Your task to perform on an android device: Add razer naga to the cart on bestbuy, then select checkout. Image 0: 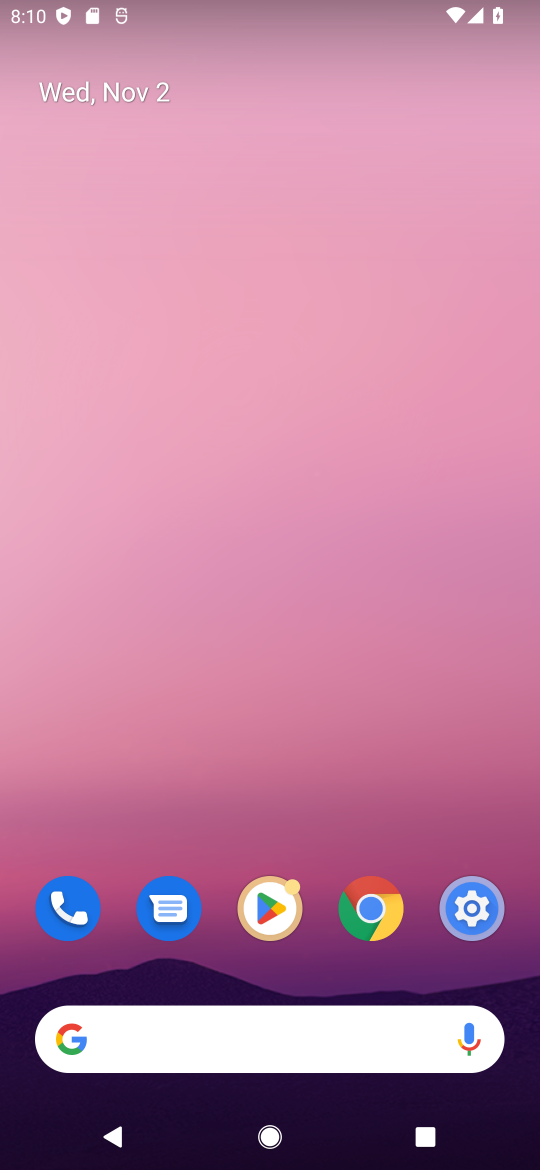
Step 0: click (147, 1020)
Your task to perform on an android device: Add razer naga to the cart on bestbuy, then select checkout. Image 1: 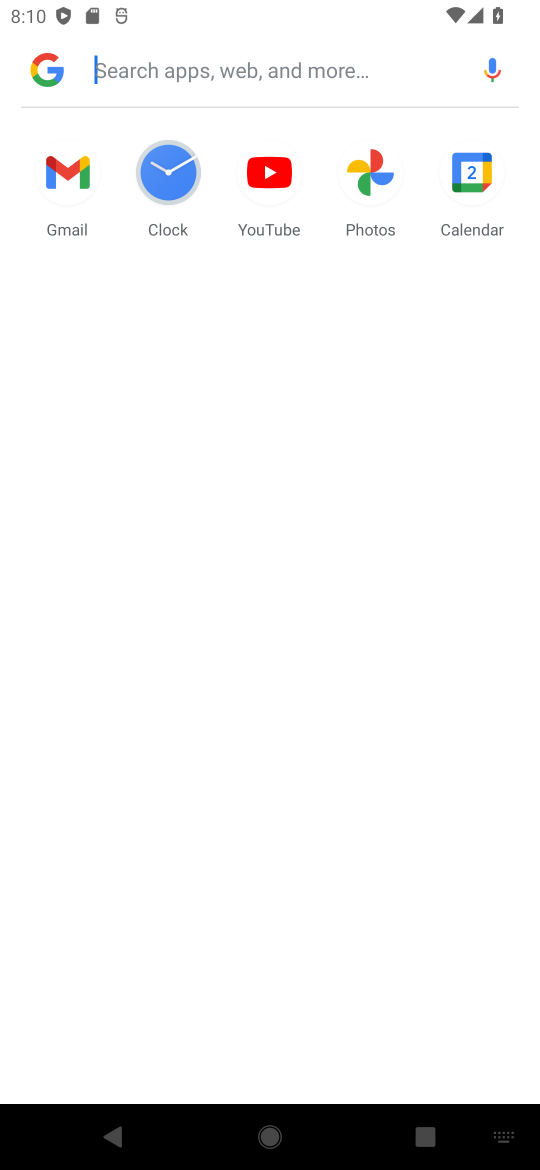
Step 1: type "bestbuy"
Your task to perform on an android device: Add razer naga to the cart on bestbuy, then select checkout. Image 2: 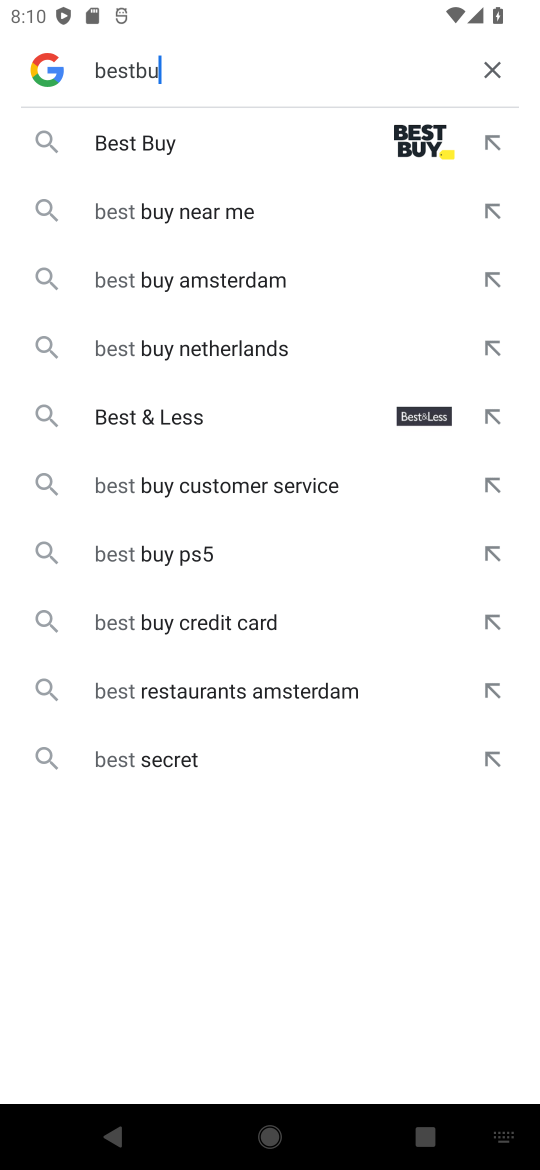
Step 2: type ""
Your task to perform on an android device: Add razer naga to the cart on bestbuy, then select checkout. Image 3: 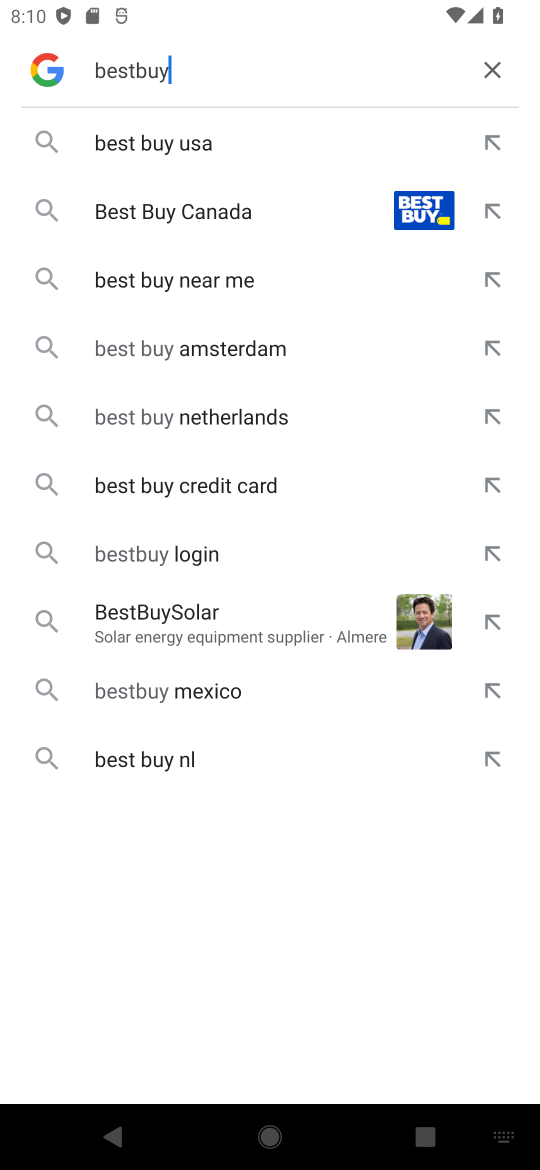
Step 3: press enter
Your task to perform on an android device: Add razer naga to the cart on bestbuy, then select checkout. Image 4: 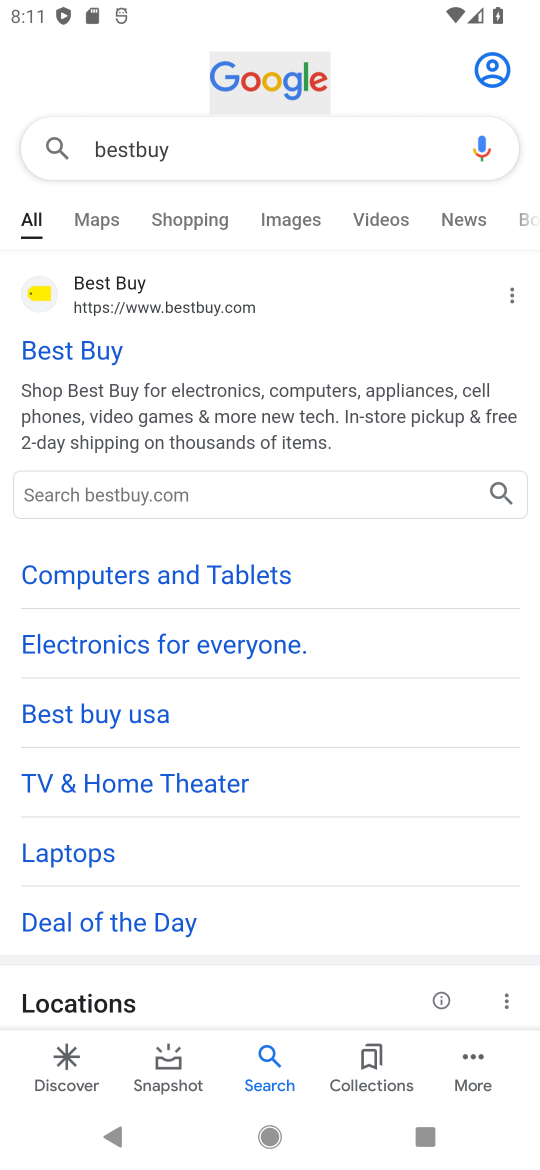
Step 4: click (124, 358)
Your task to perform on an android device: Add razer naga to the cart on bestbuy, then select checkout. Image 5: 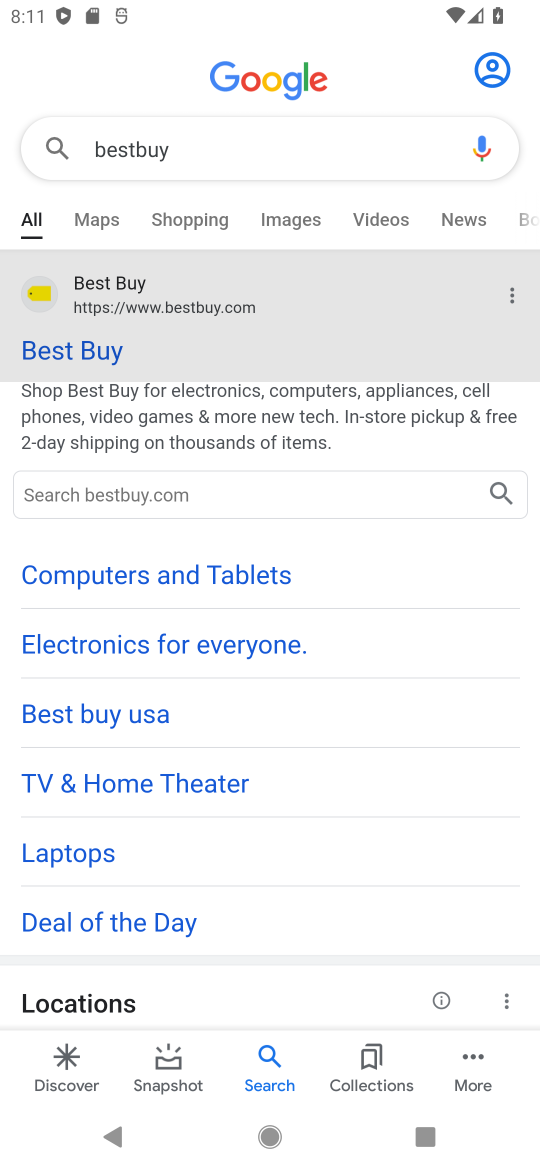
Step 5: click (123, 364)
Your task to perform on an android device: Add razer naga to the cart on bestbuy, then select checkout. Image 6: 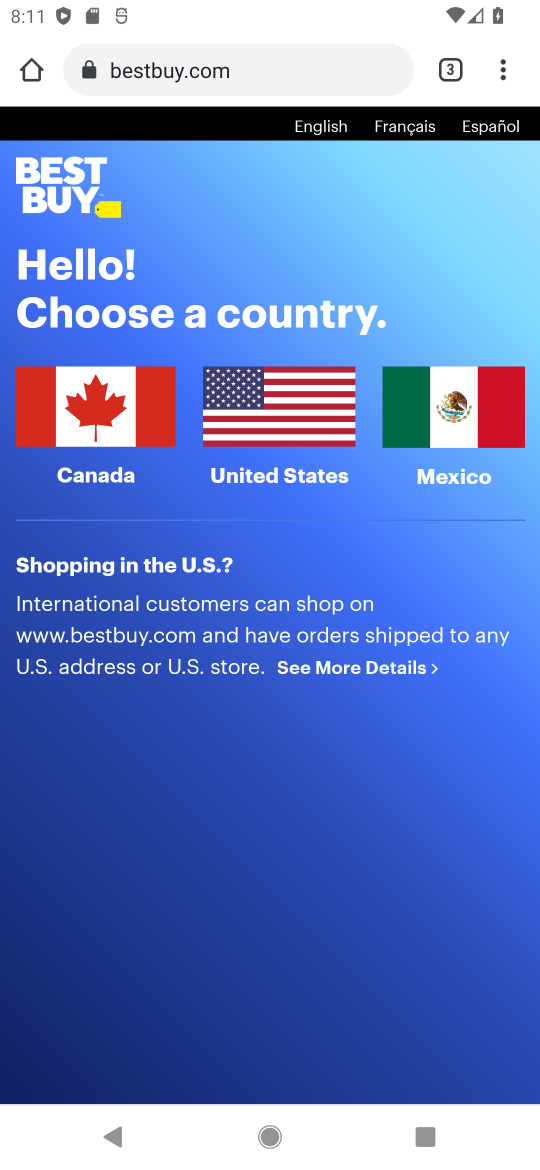
Step 6: click (265, 383)
Your task to perform on an android device: Add razer naga to the cart on bestbuy, then select checkout. Image 7: 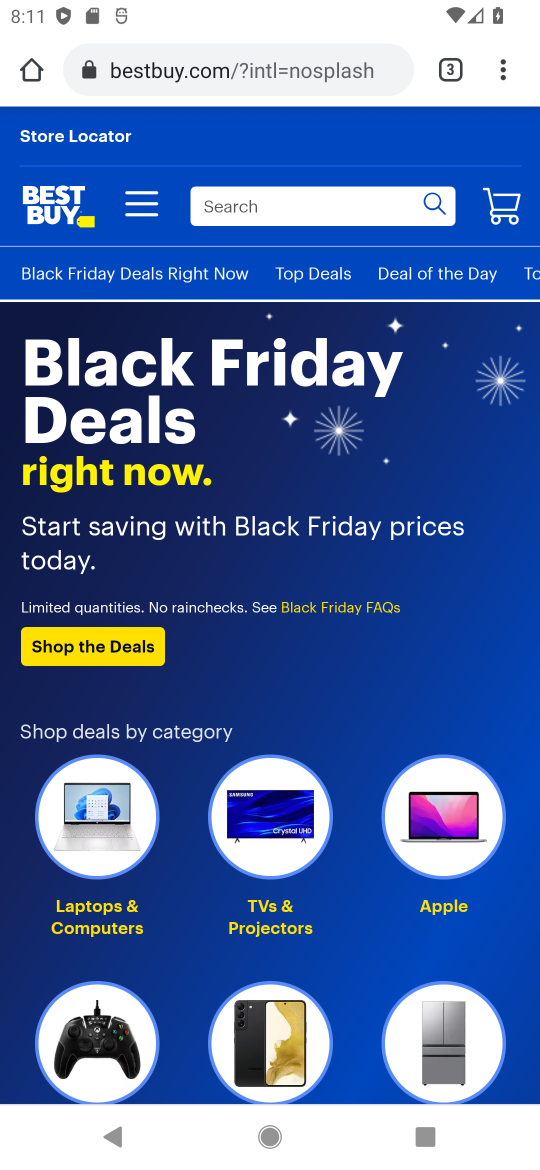
Step 7: click (280, 208)
Your task to perform on an android device: Add razer naga to the cart on bestbuy, then select checkout. Image 8: 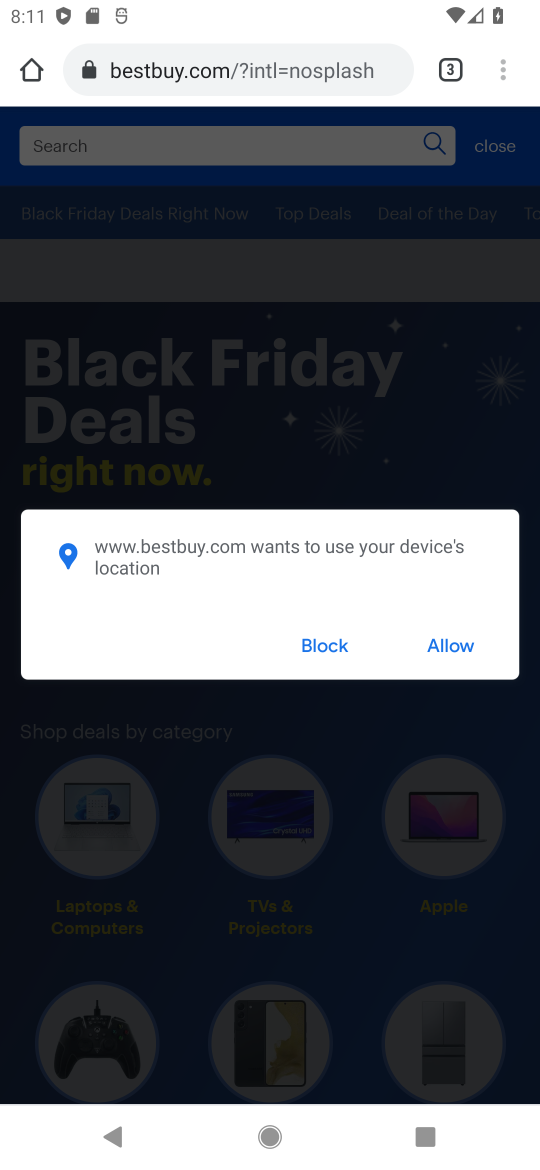
Step 8: click (331, 647)
Your task to perform on an android device: Add razer naga to the cart on bestbuy, then select checkout. Image 9: 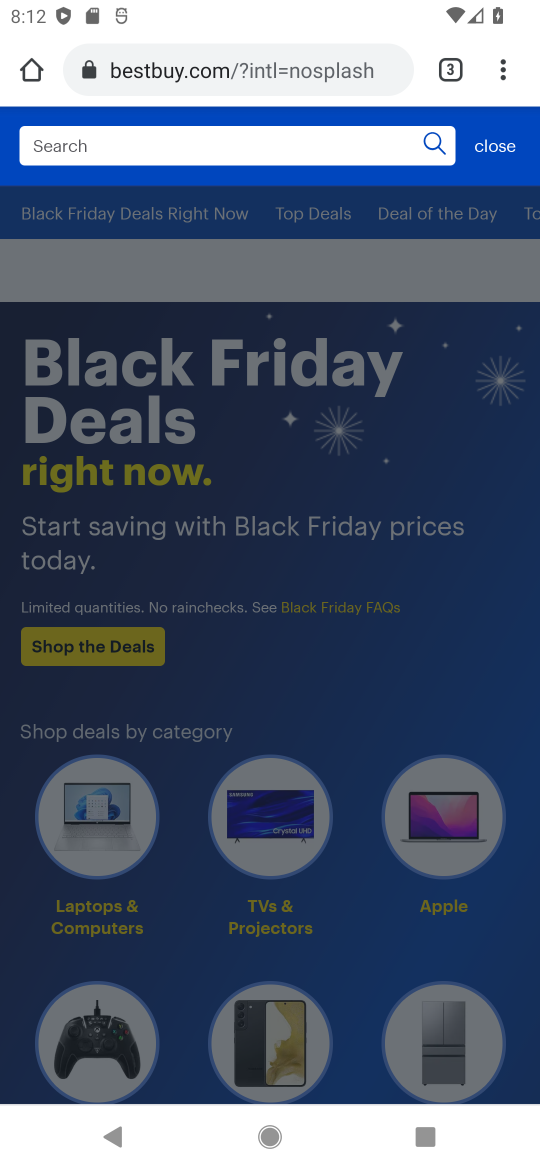
Step 9: click (191, 169)
Your task to perform on an android device: Add razer naga to the cart on bestbuy, then select checkout. Image 10: 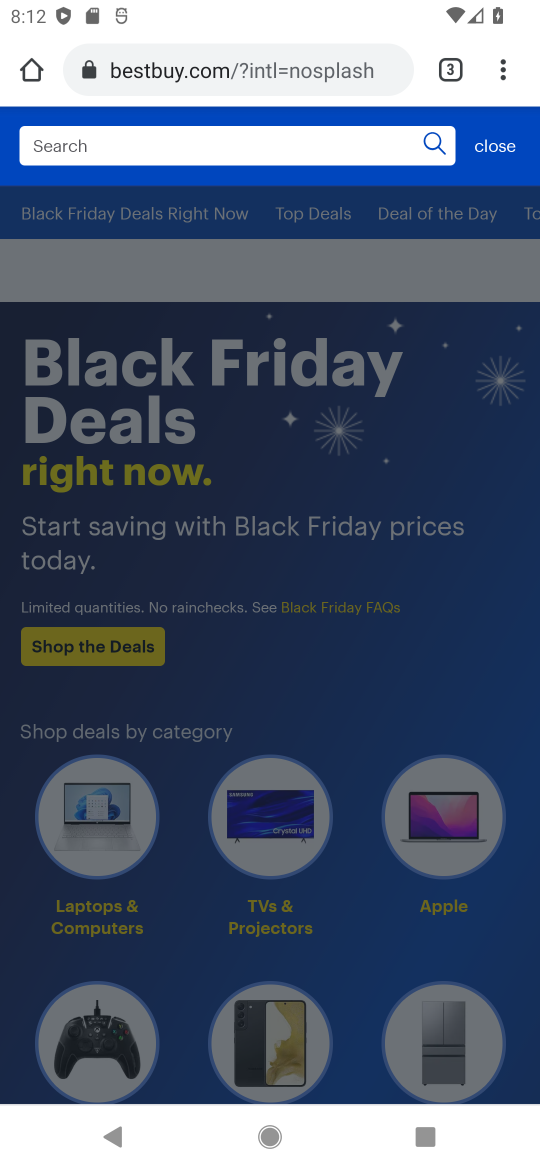
Step 10: click (169, 137)
Your task to perform on an android device: Add razer naga to the cart on bestbuy, then select checkout. Image 11: 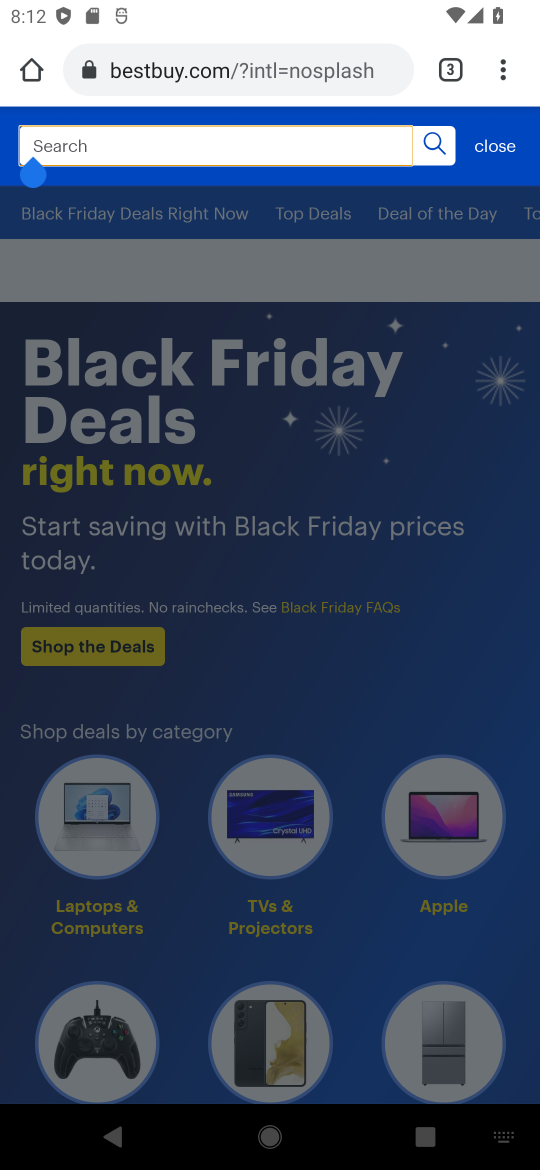
Step 11: type "razer naga"
Your task to perform on an android device: Add razer naga to the cart on bestbuy, then select checkout. Image 12: 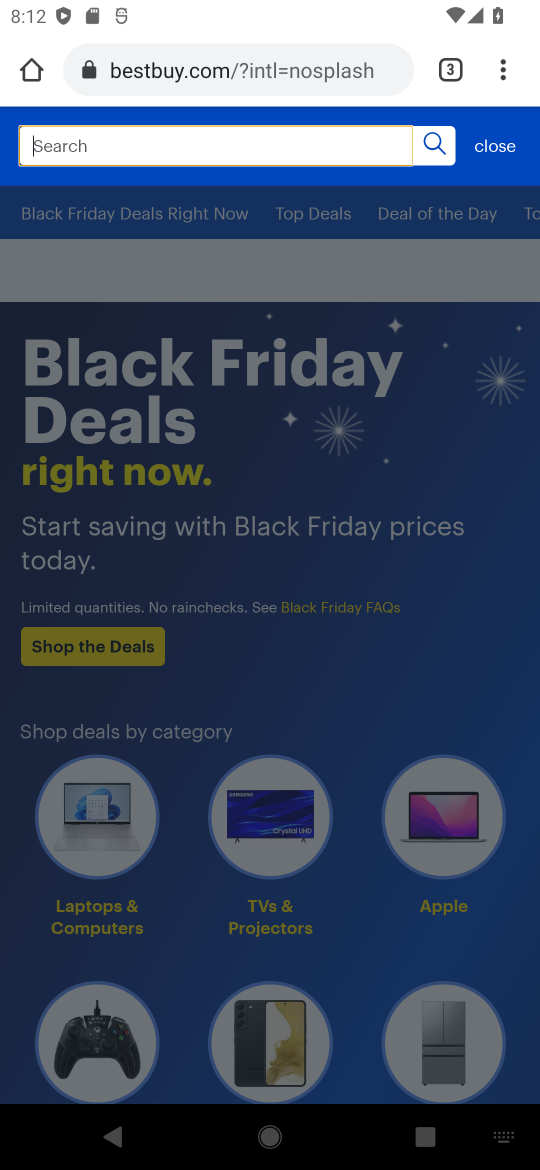
Step 12: type ""
Your task to perform on an android device: Add razer naga to the cart on bestbuy, then select checkout. Image 13: 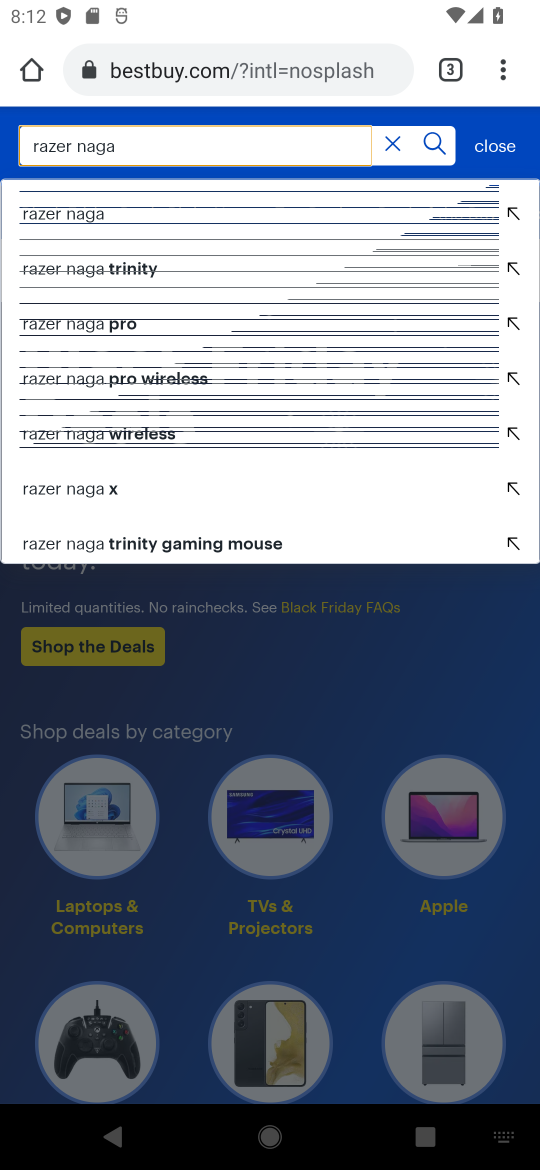
Step 13: press enter
Your task to perform on an android device: Add razer naga to the cart on bestbuy, then select checkout. Image 14: 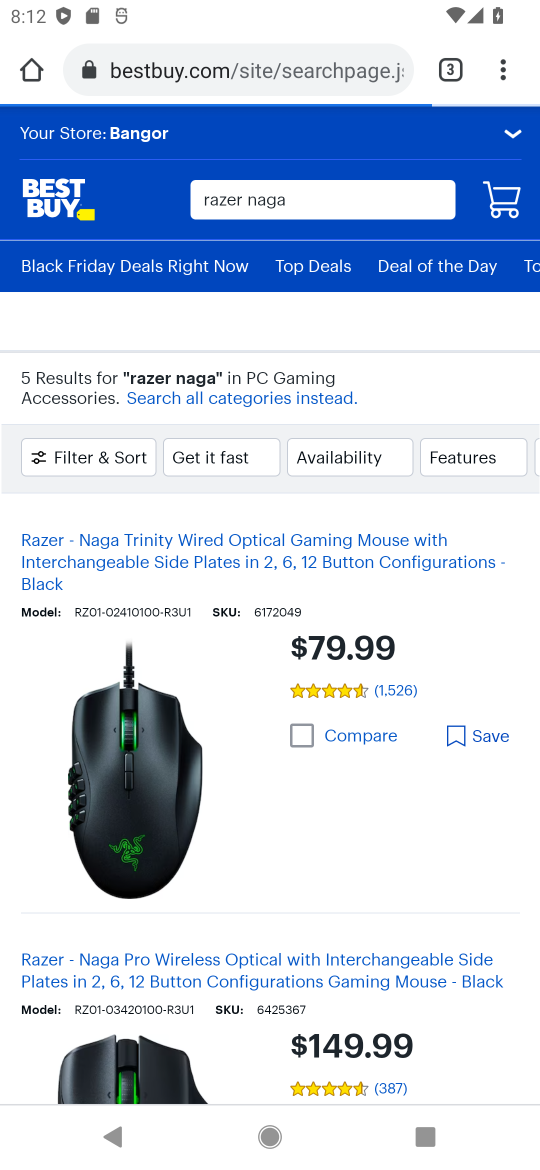
Step 14: press enter
Your task to perform on an android device: Add razer naga to the cart on bestbuy, then select checkout. Image 15: 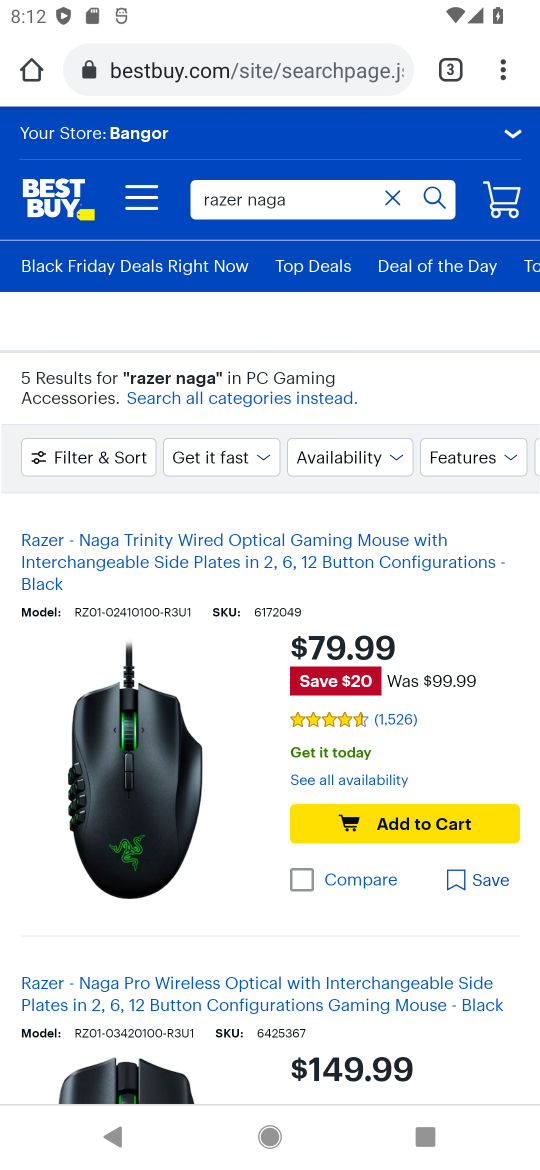
Step 15: click (422, 818)
Your task to perform on an android device: Add razer naga to the cart on bestbuy, then select checkout. Image 16: 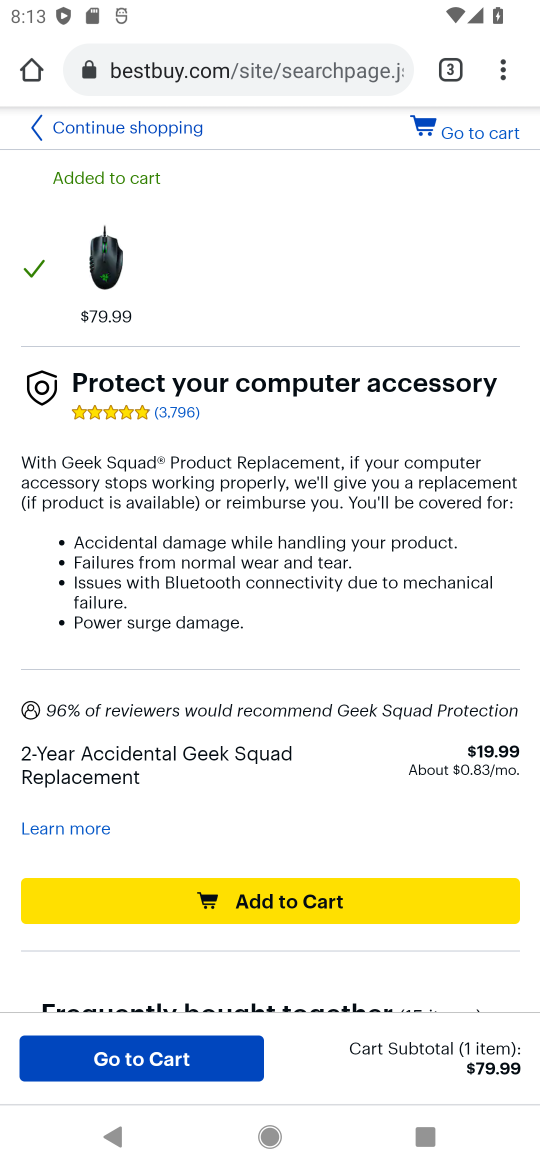
Step 16: click (284, 896)
Your task to perform on an android device: Add razer naga to the cart on bestbuy, then select checkout. Image 17: 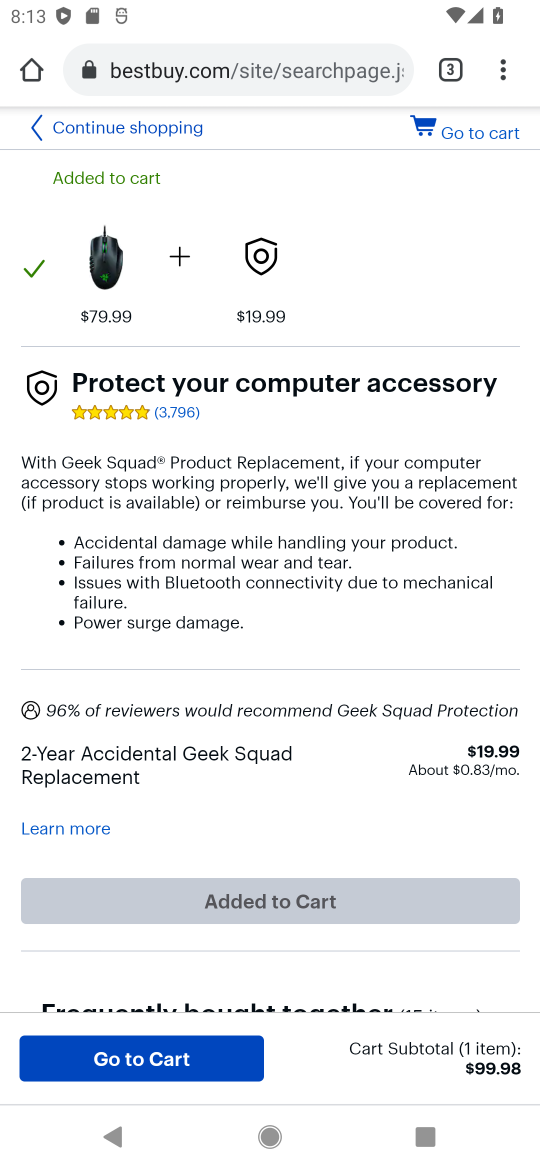
Step 17: click (286, 896)
Your task to perform on an android device: Add razer naga to the cart on bestbuy, then select checkout. Image 18: 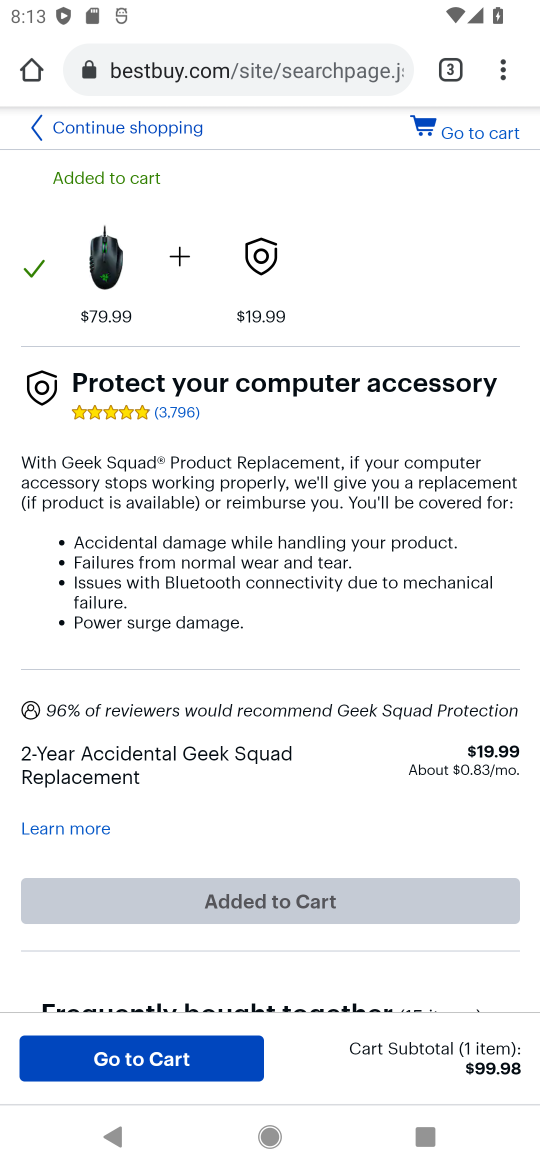
Step 18: task complete